Your task to perform on an android device: Search for macbook pro on costco.com, select the first entry, and add it to the cart. Image 0: 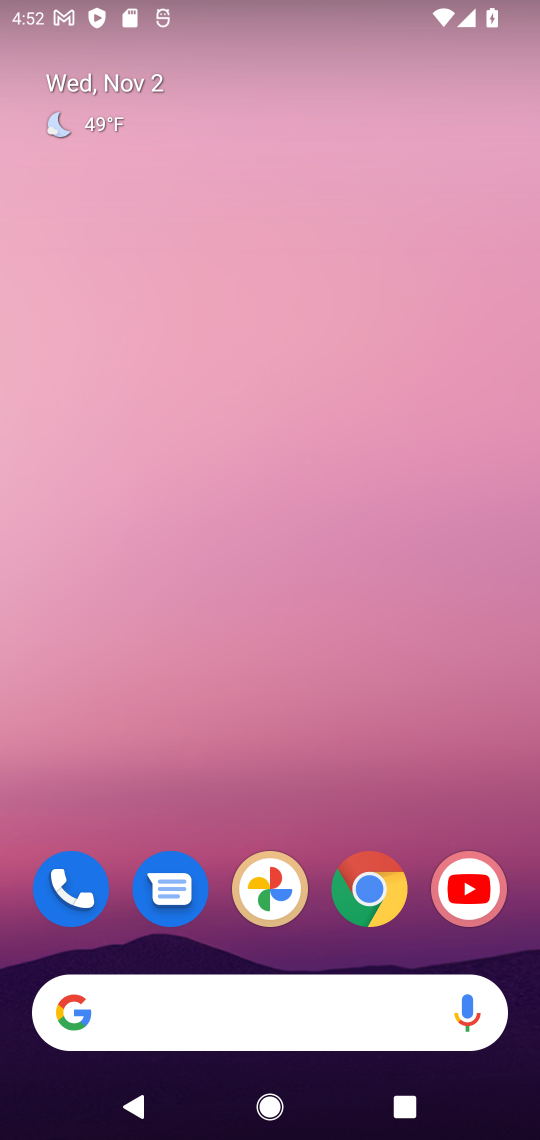
Step 0: click (379, 887)
Your task to perform on an android device: Search for macbook pro on costco.com, select the first entry, and add it to the cart. Image 1: 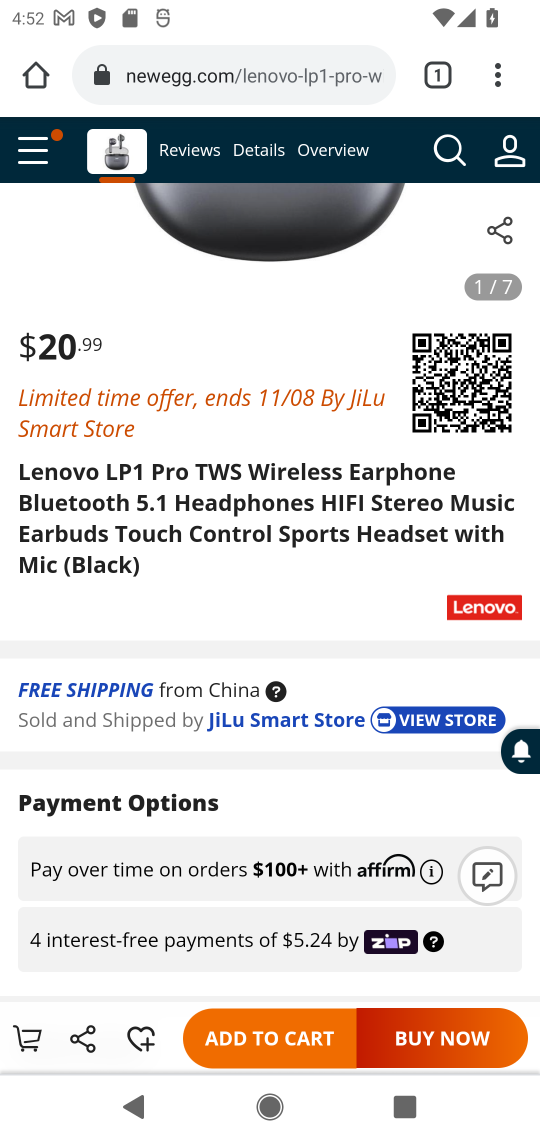
Step 1: click (283, 83)
Your task to perform on an android device: Search for macbook pro on costco.com, select the first entry, and add it to the cart. Image 2: 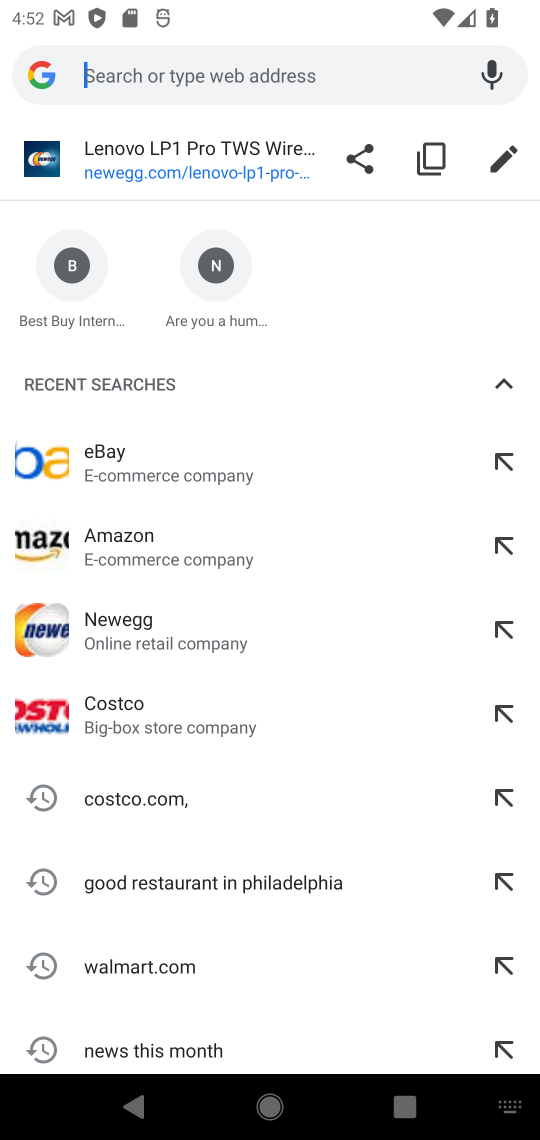
Step 2: type "costco"
Your task to perform on an android device: Search for macbook pro on costco.com, select the first entry, and add it to the cart. Image 3: 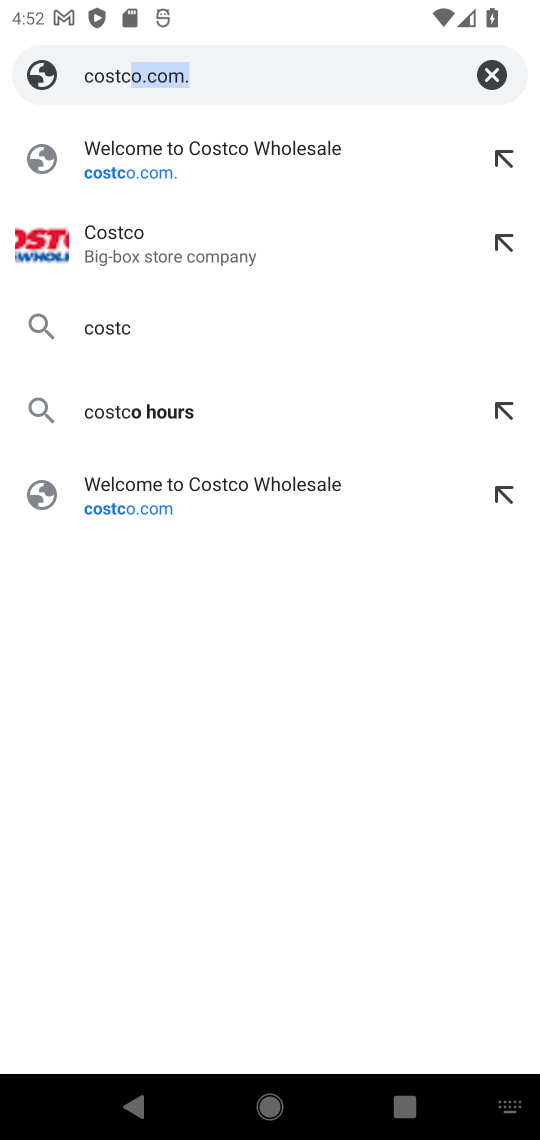
Step 3: press enter
Your task to perform on an android device: Search for macbook pro on costco.com, select the first entry, and add it to the cart. Image 4: 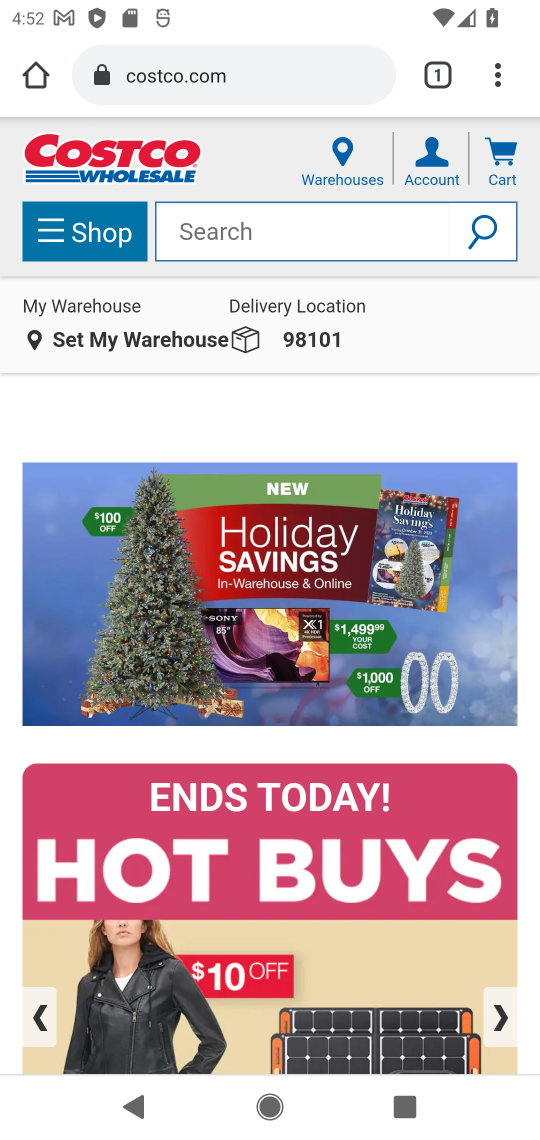
Step 4: click (307, 238)
Your task to perform on an android device: Search for macbook pro on costco.com, select the first entry, and add it to the cart. Image 5: 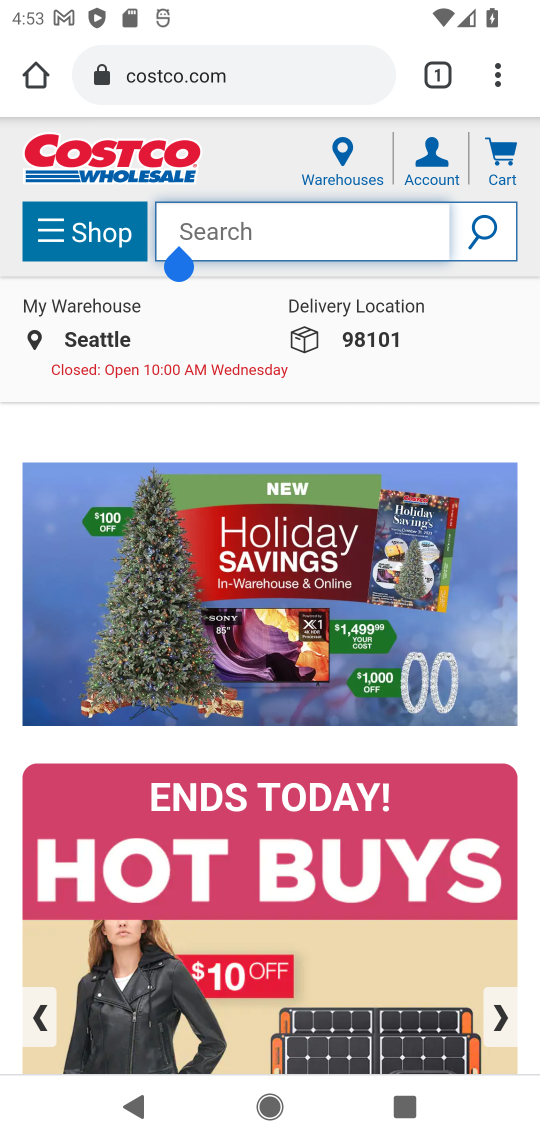
Step 5: type "macbook pro"
Your task to perform on an android device: Search for macbook pro on costco.com, select the first entry, and add it to the cart. Image 6: 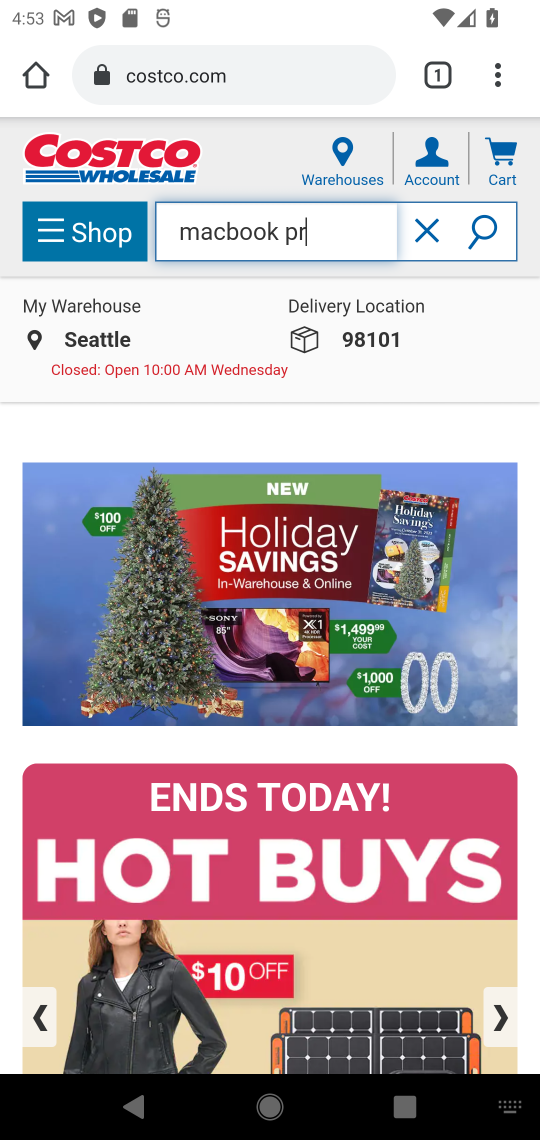
Step 6: press enter
Your task to perform on an android device: Search for macbook pro on costco.com, select the first entry, and add it to the cart. Image 7: 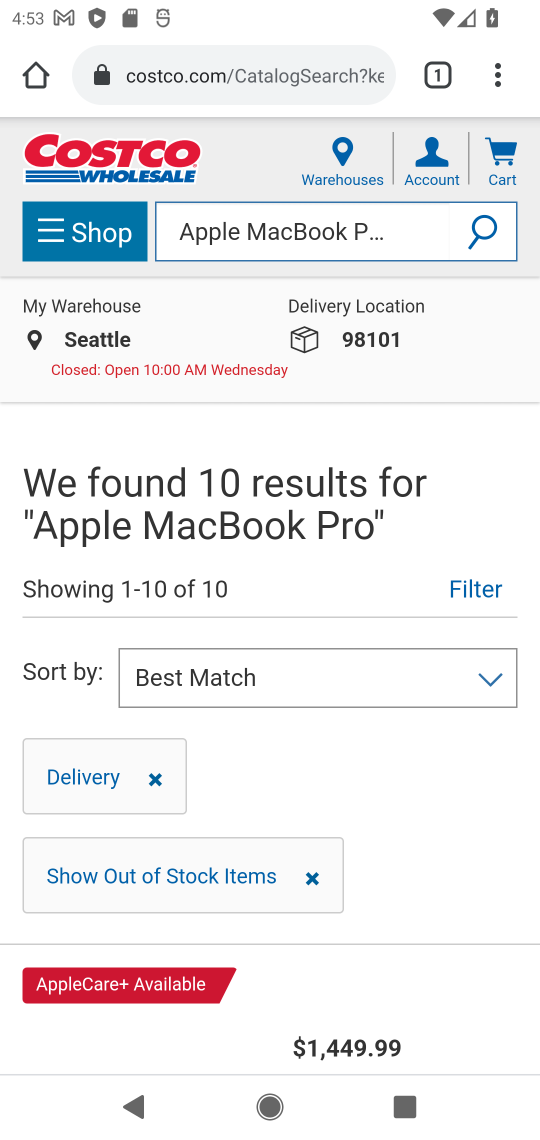
Step 7: drag from (318, 817) to (388, 443)
Your task to perform on an android device: Search for macbook pro on costco.com, select the first entry, and add it to the cart. Image 8: 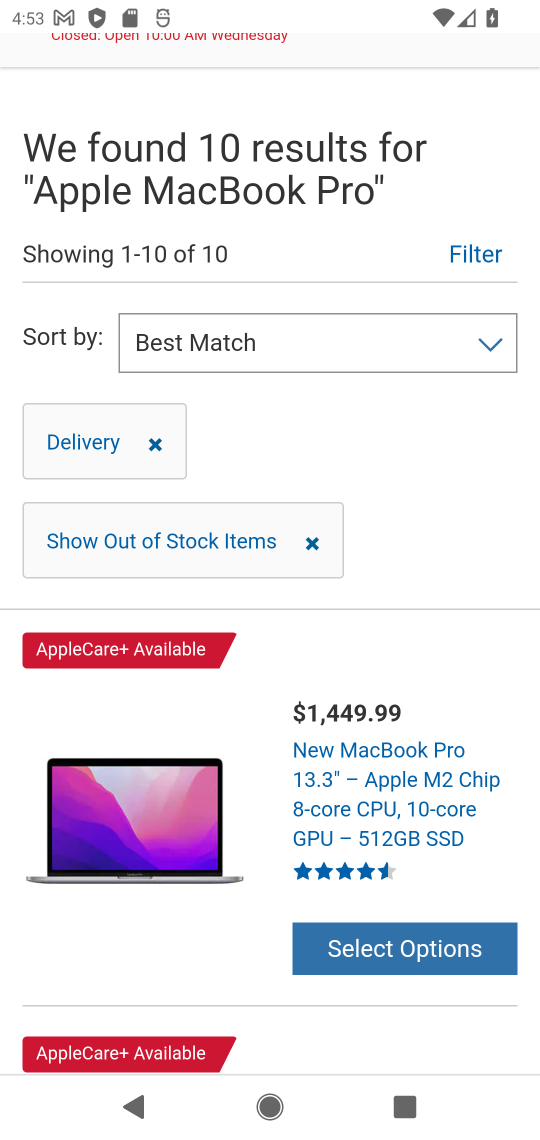
Step 8: drag from (358, 718) to (367, 906)
Your task to perform on an android device: Search for macbook pro on costco.com, select the first entry, and add it to the cart. Image 9: 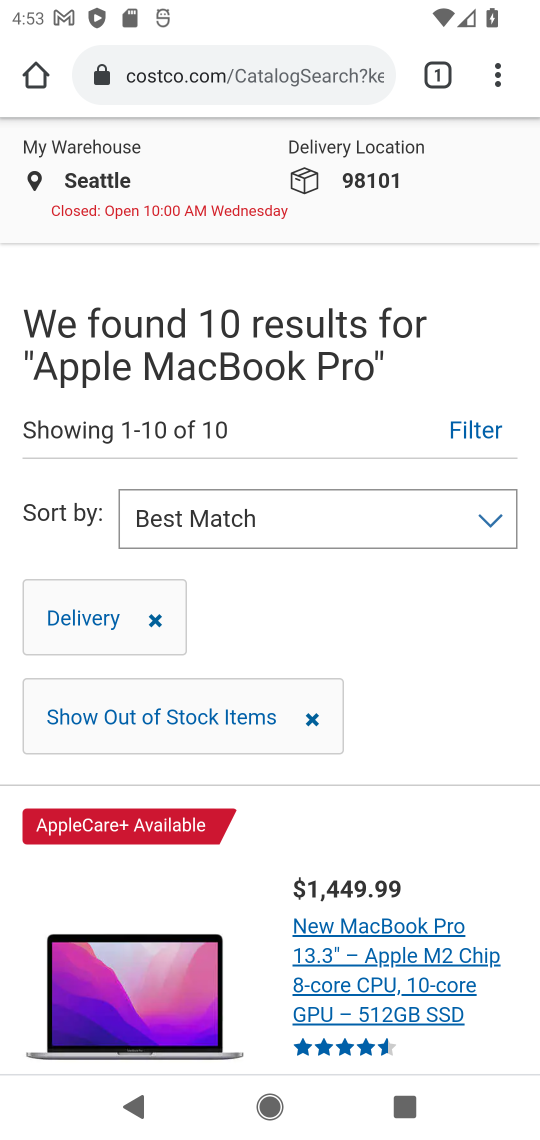
Step 9: click (299, 922)
Your task to perform on an android device: Search for macbook pro on costco.com, select the first entry, and add it to the cart. Image 10: 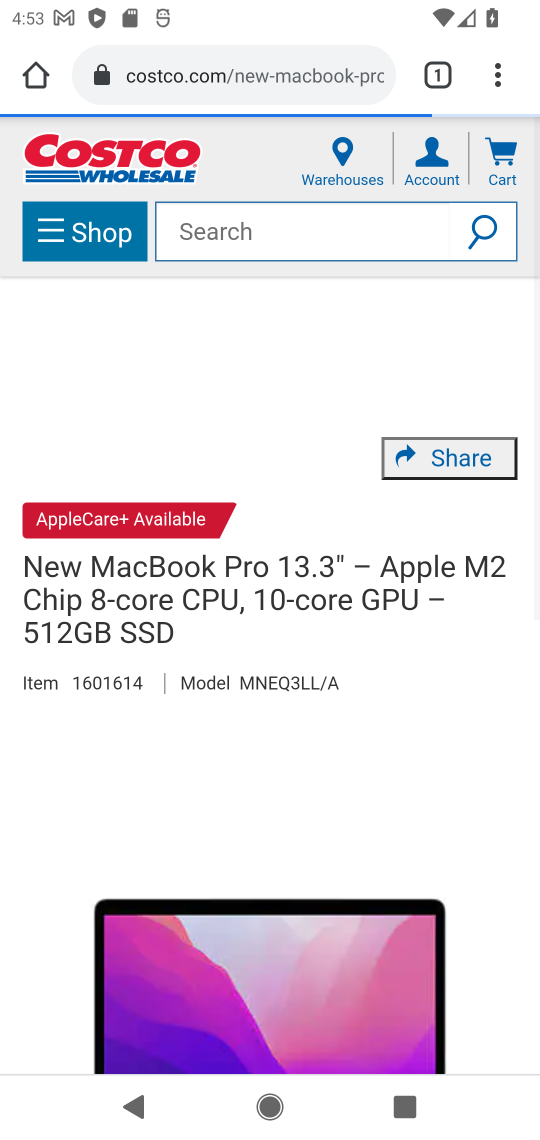
Step 10: drag from (299, 921) to (468, 669)
Your task to perform on an android device: Search for macbook pro on costco.com, select the first entry, and add it to the cart. Image 11: 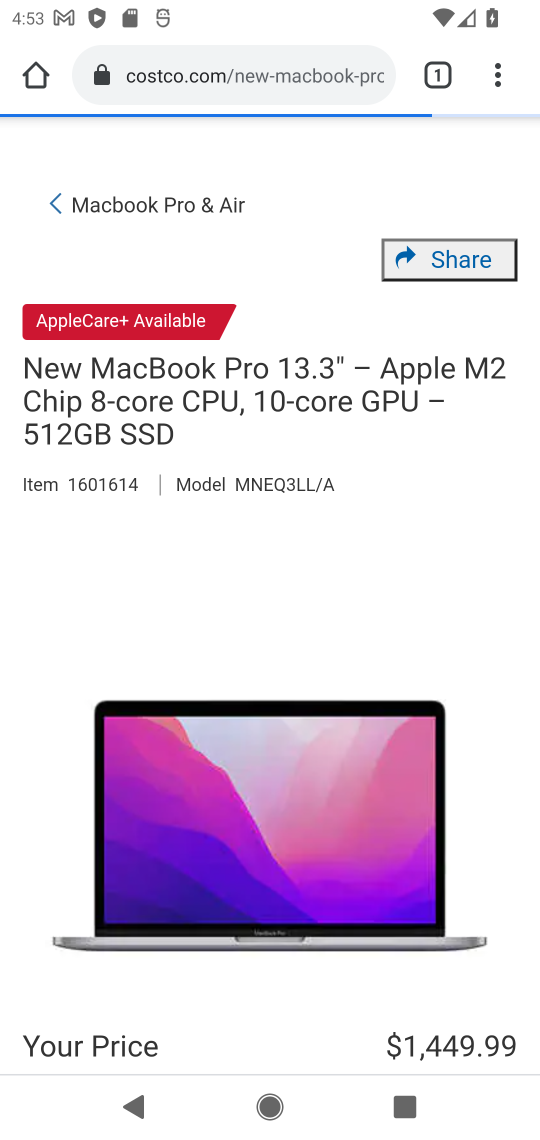
Step 11: drag from (300, 979) to (442, 214)
Your task to perform on an android device: Search for macbook pro on costco.com, select the first entry, and add it to the cart. Image 12: 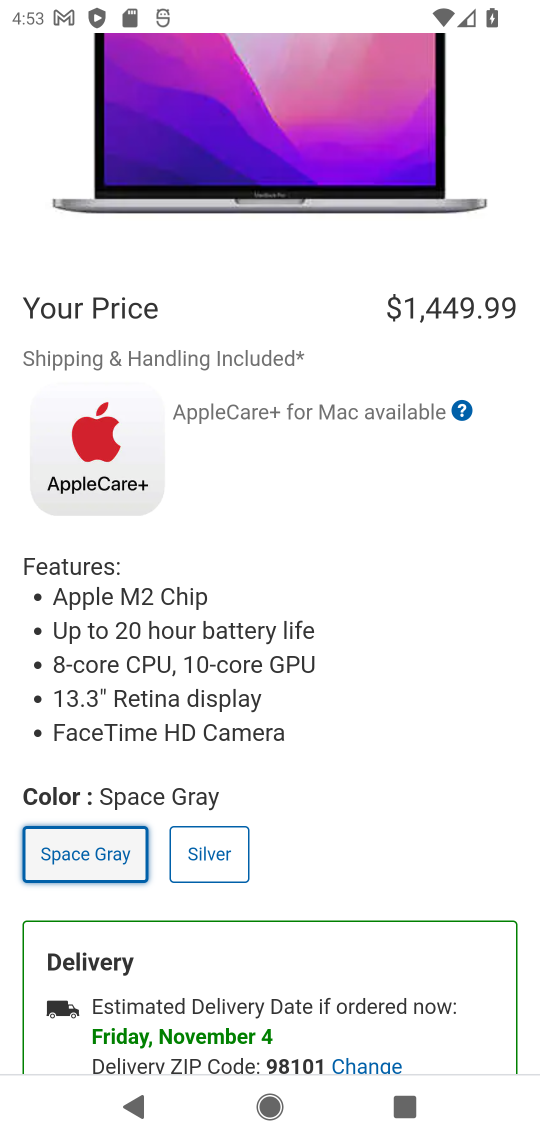
Step 12: drag from (334, 806) to (454, 241)
Your task to perform on an android device: Search for macbook pro on costco.com, select the first entry, and add it to the cart. Image 13: 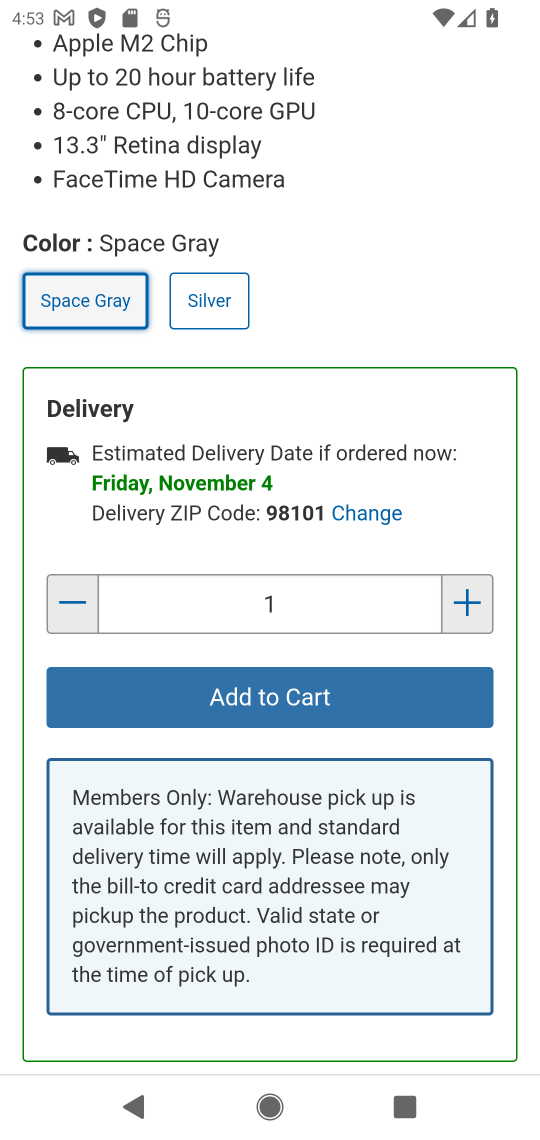
Step 13: click (258, 701)
Your task to perform on an android device: Search for macbook pro on costco.com, select the first entry, and add it to the cart. Image 14: 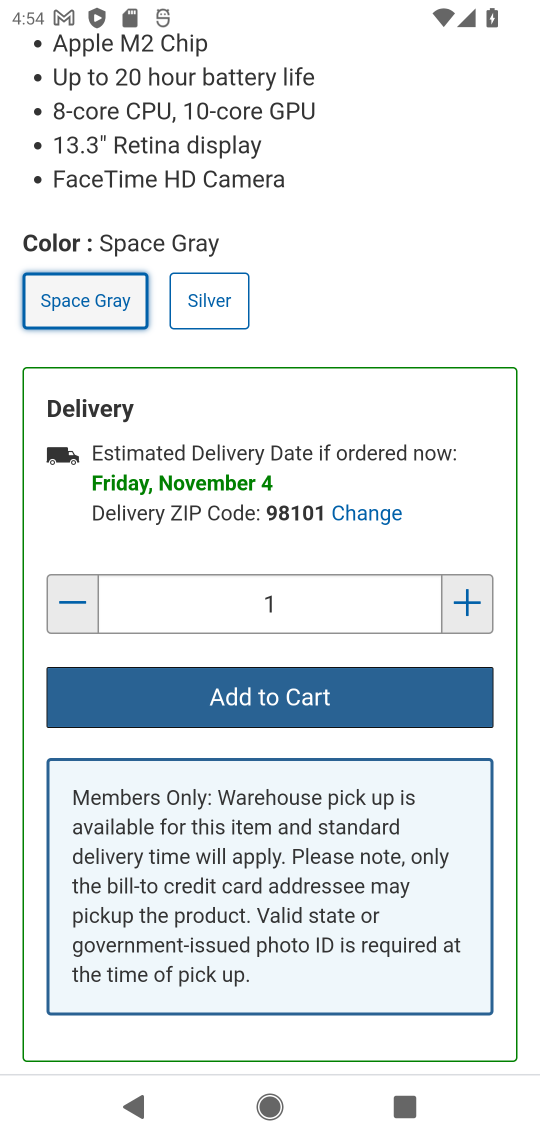
Step 14: drag from (364, 257) to (313, 979)
Your task to perform on an android device: Search for macbook pro on costco.com, select the first entry, and add it to the cart. Image 15: 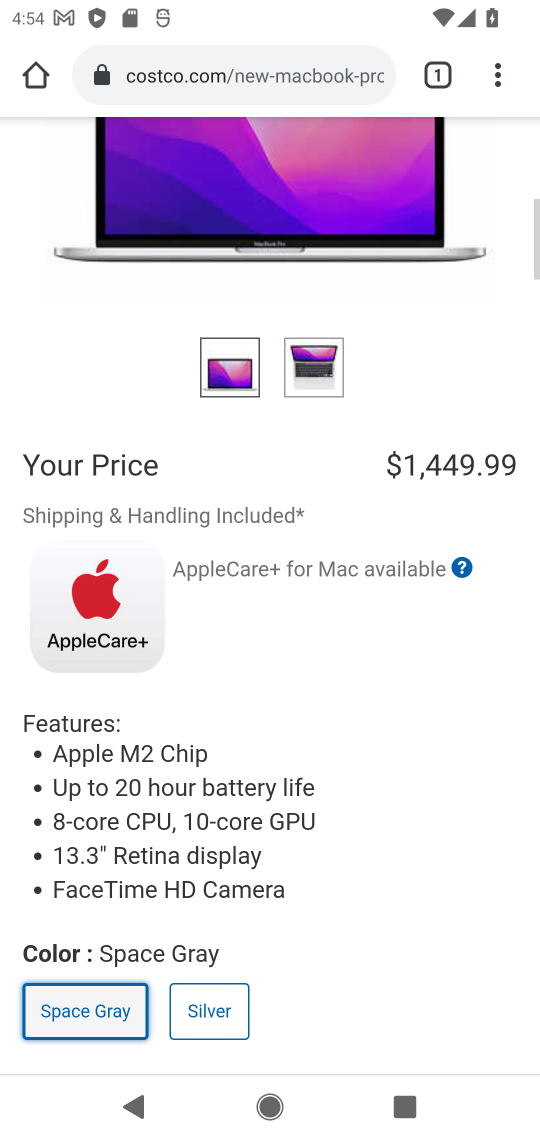
Step 15: drag from (255, 411) to (175, 1009)
Your task to perform on an android device: Search for macbook pro on costco.com, select the first entry, and add it to the cart. Image 16: 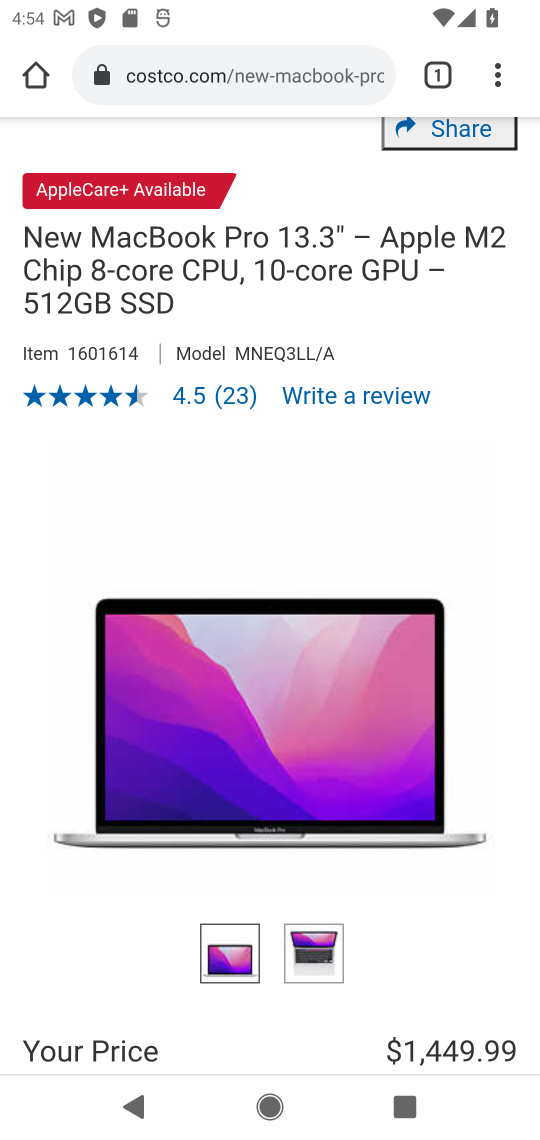
Step 16: drag from (395, 282) to (265, 894)
Your task to perform on an android device: Search for macbook pro on costco.com, select the first entry, and add it to the cart. Image 17: 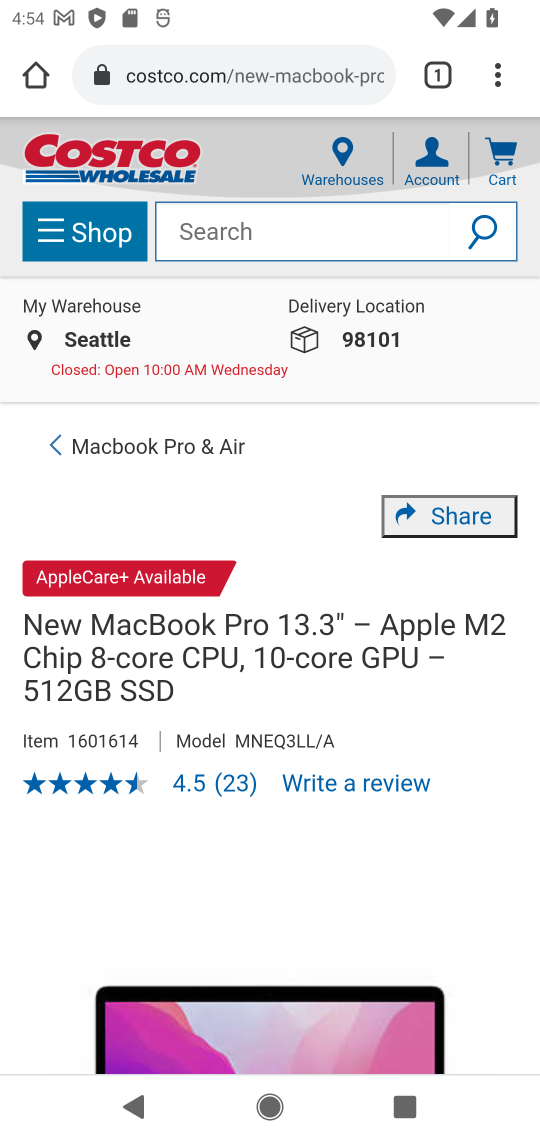
Step 17: drag from (243, 836) to (457, 66)
Your task to perform on an android device: Search for macbook pro on costco.com, select the first entry, and add it to the cart. Image 18: 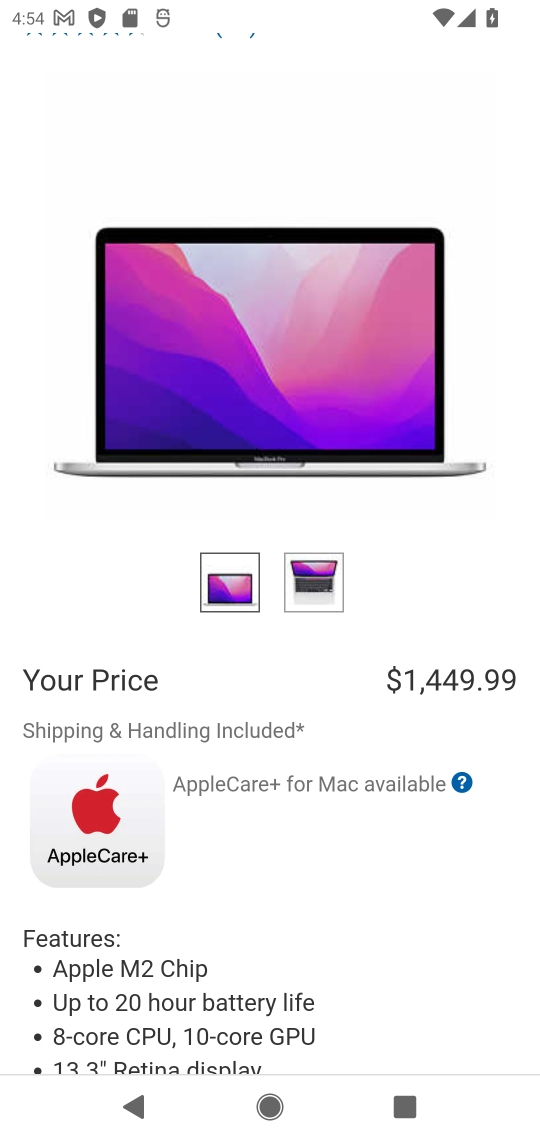
Step 18: drag from (341, 996) to (514, 210)
Your task to perform on an android device: Search for macbook pro on costco.com, select the first entry, and add it to the cart. Image 19: 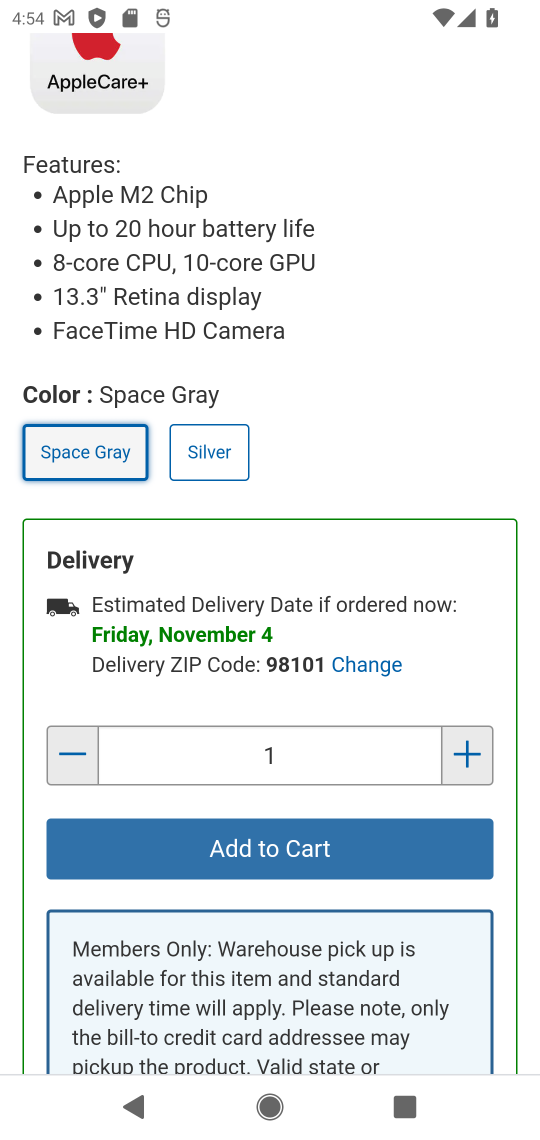
Step 19: click (285, 849)
Your task to perform on an android device: Search for macbook pro on costco.com, select the first entry, and add it to the cart. Image 20: 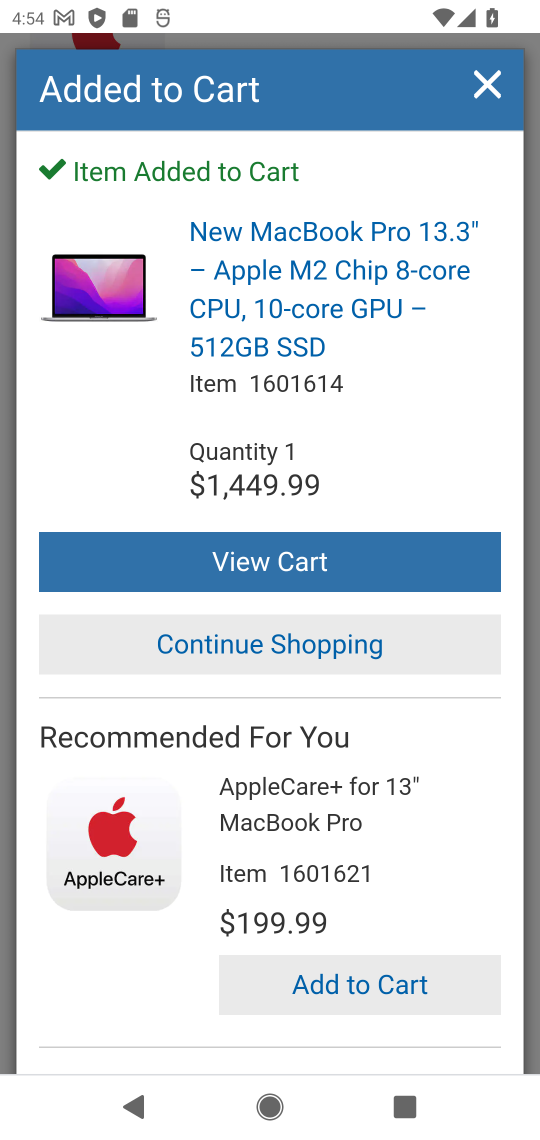
Step 20: click (307, 564)
Your task to perform on an android device: Search for macbook pro on costco.com, select the first entry, and add it to the cart. Image 21: 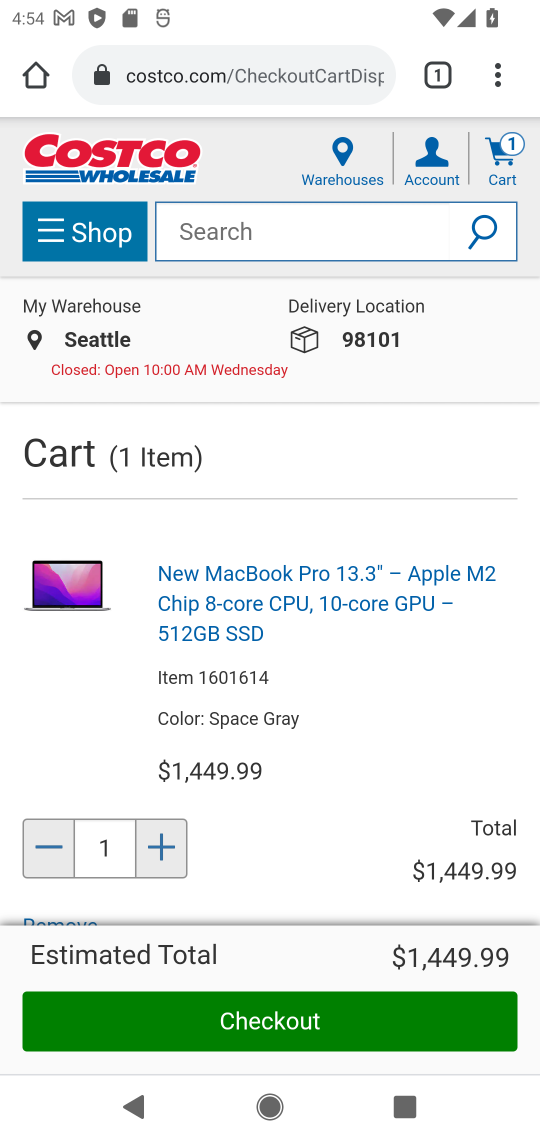
Step 21: task complete